Your task to perform on an android device: Search for pizza restaurants on Maps Image 0: 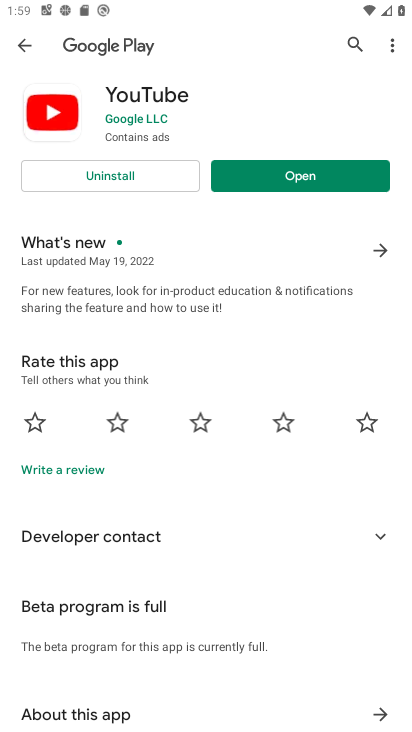
Step 0: press home button
Your task to perform on an android device: Search for pizza restaurants on Maps Image 1: 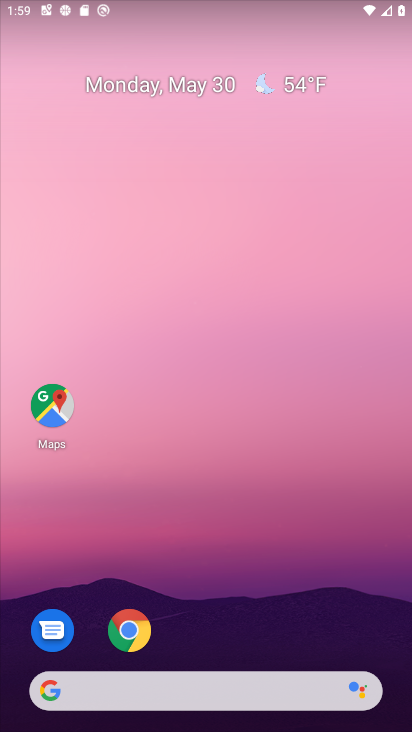
Step 1: click (59, 415)
Your task to perform on an android device: Search for pizza restaurants on Maps Image 2: 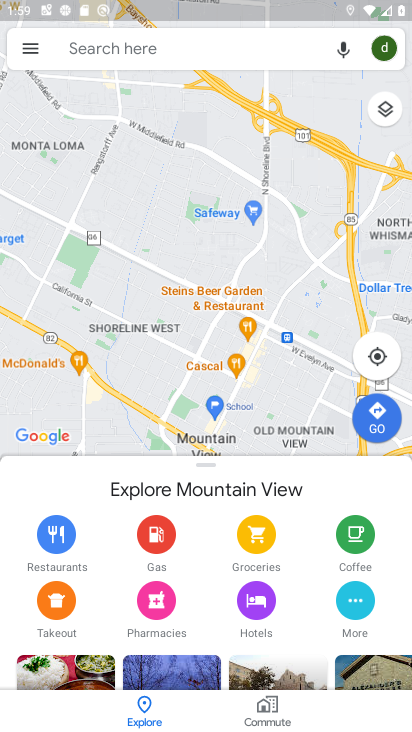
Step 2: click (158, 49)
Your task to perform on an android device: Search for pizza restaurants on Maps Image 3: 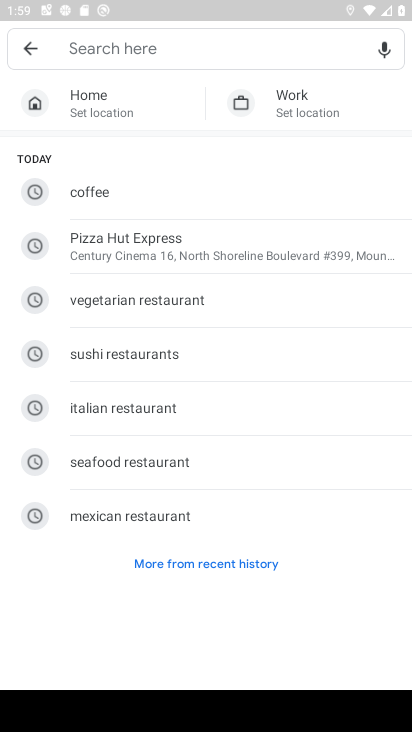
Step 3: type "pizza"
Your task to perform on an android device: Search for pizza restaurants on Maps Image 4: 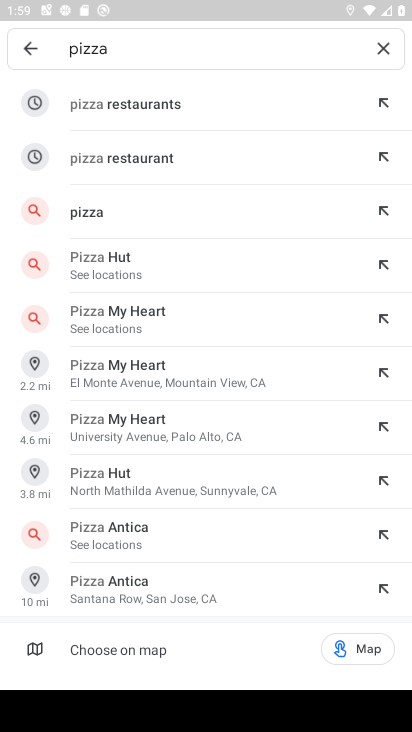
Step 4: click (165, 104)
Your task to perform on an android device: Search for pizza restaurants on Maps Image 5: 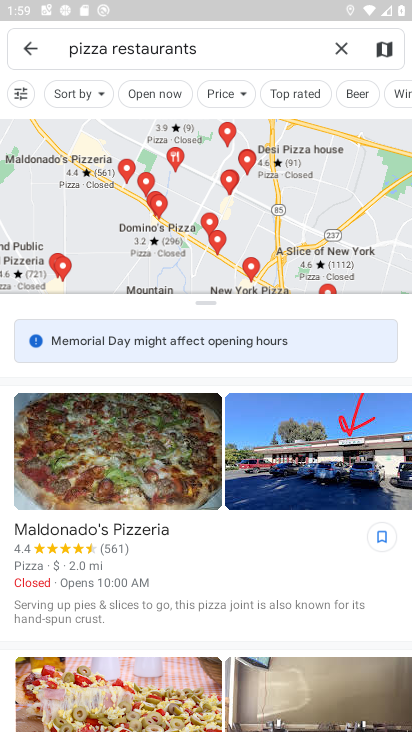
Step 5: task complete